Your task to perform on an android device: make emails show in primary in the gmail app Image 0: 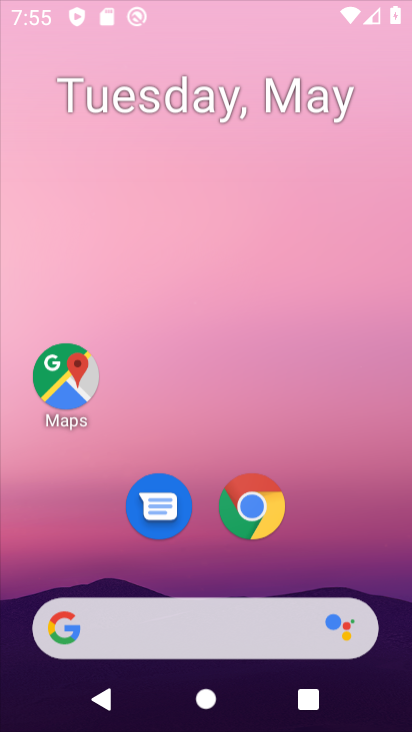
Step 0: press back button
Your task to perform on an android device: make emails show in primary in the gmail app Image 1: 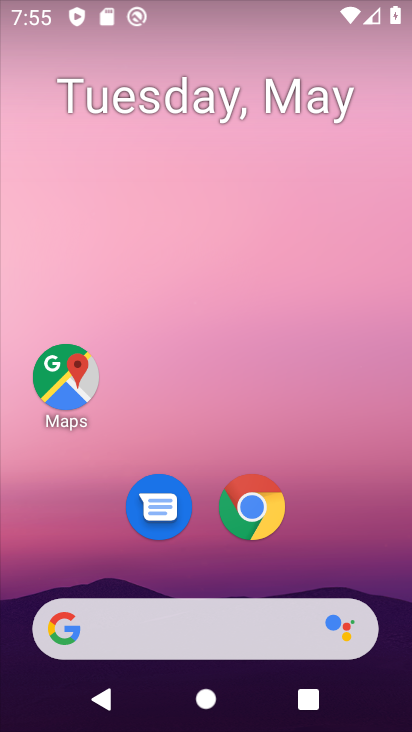
Step 1: click (303, 1)
Your task to perform on an android device: make emails show in primary in the gmail app Image 2: 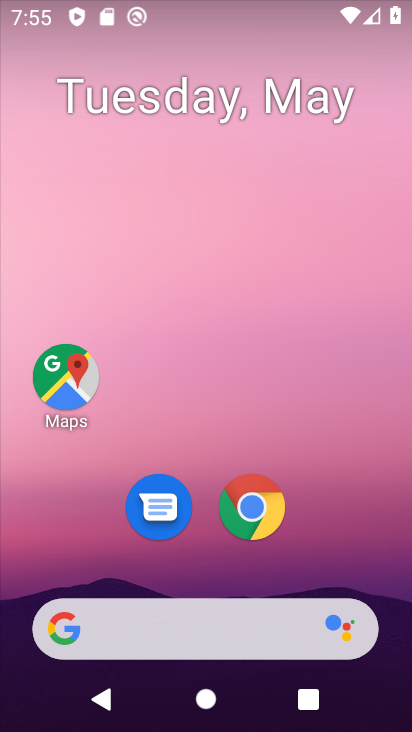
Step 2: drag from (361, 559) to (264, 39)
Your task to perform on an android device: make emails show in primary in the gmail app Image 3: 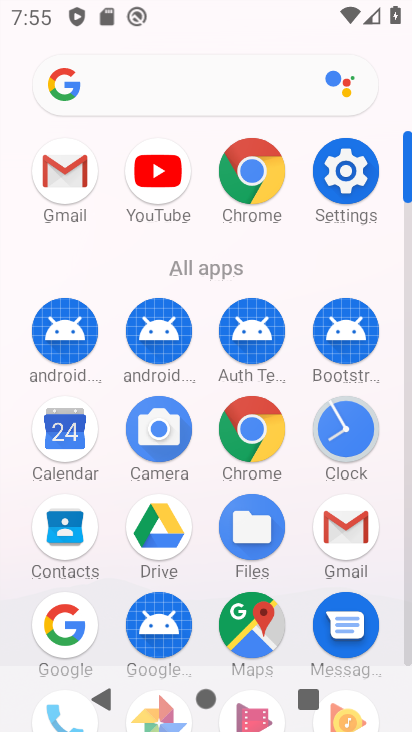
Step 3: drag from (16, 412) to (31, 284)
Your task to perform on an android device: make emails show in primary in the gmail app Image 4: 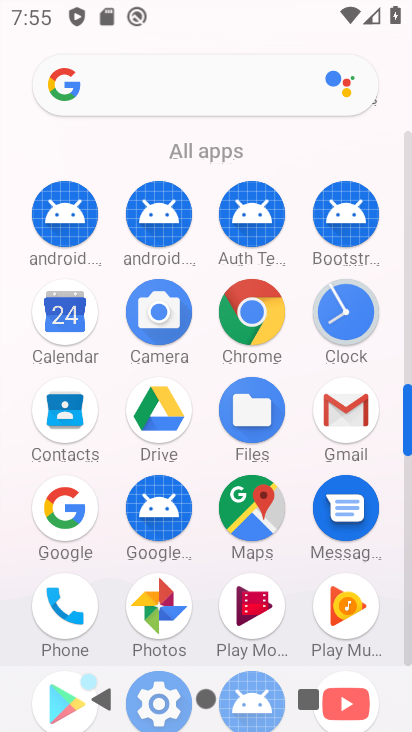
Step 4: click (343, 405)
Your task to perform on an android device: make emails show in primary in the gmail app Image 5: 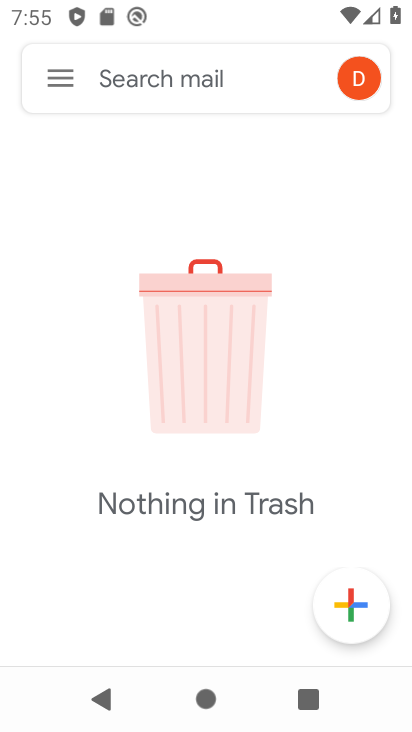
Step 5: click (61, 72)
Your task to perform on an android device: make emails show in primary in the gmail app Image 6: 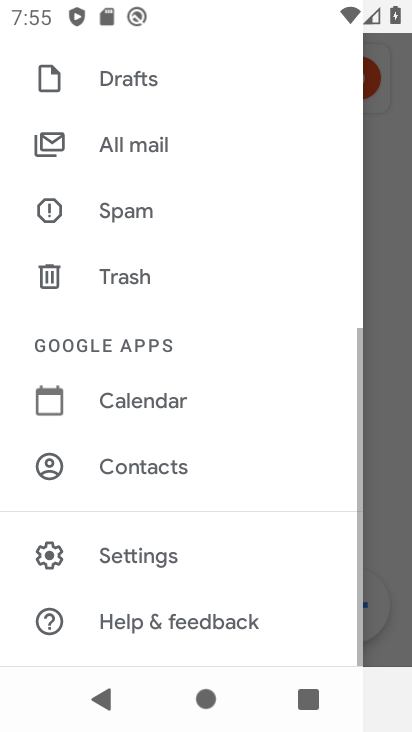
Step 6: drag from (207, 452) to (227, 88)
Your task to perform on an android device: make emails show in primary in the gmail app Image 7: 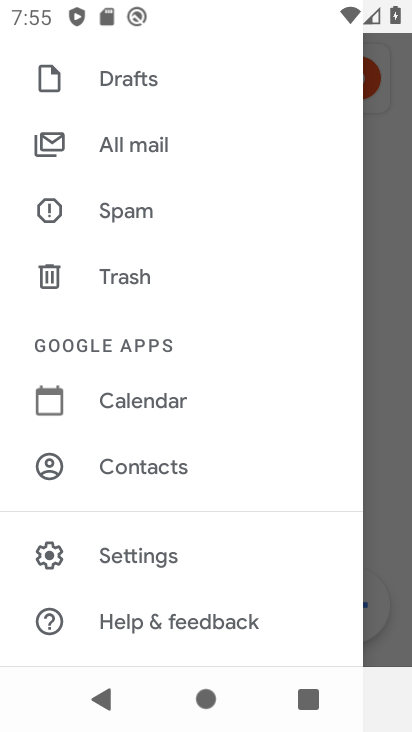
Step 7: click (139, 554)
Your task to perform on an android device: make emails show in primary in the gmail app Image 8: 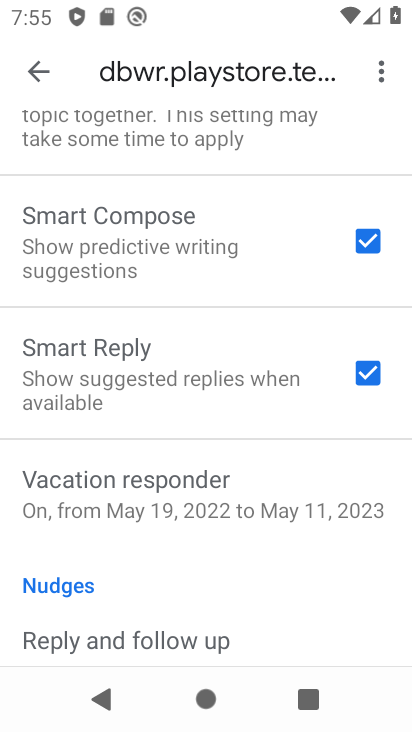
Step 8: task complete